Your task to perform on an android device: Go to network settings Image 0: 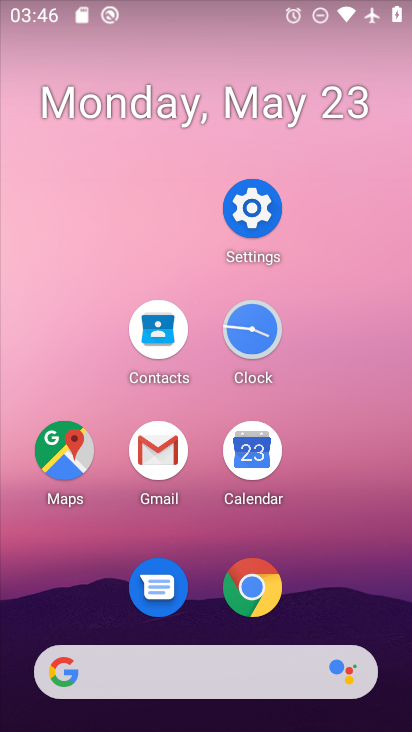
Step 0: click (258, 246)
Your task to perform on an android device: Go to network settings Image 1: 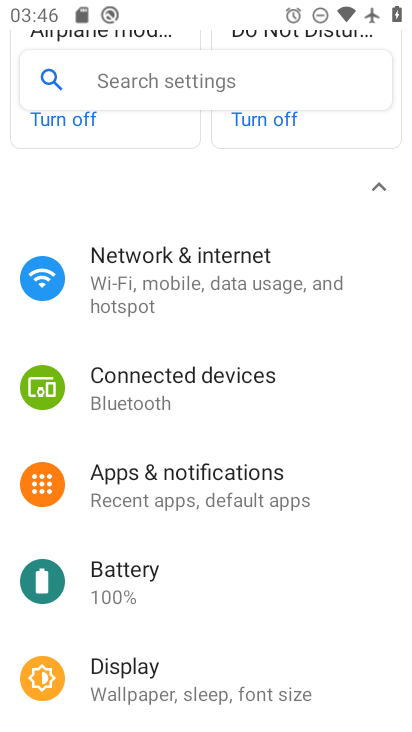
Step 1: click (234, 262)
Your task to perform on an android device: Go to network settings Image 2: 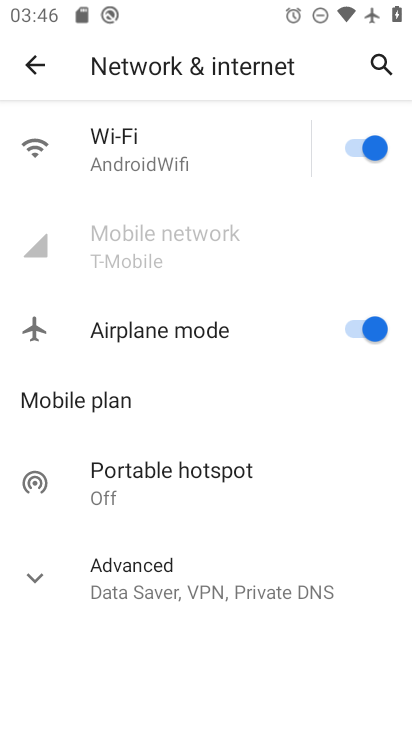
Step 2: task complete